Your task to perform on an android device: Open calendar and show me the fourth week of next month Image 0: 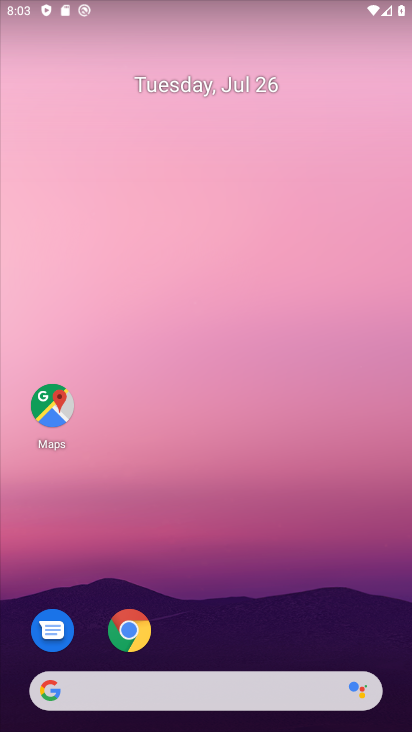
Step 0: drag from (261, 693) to (285, 100)
Your task to perform on an android device: Open calendar and show me the fourth week of next month Image 1: 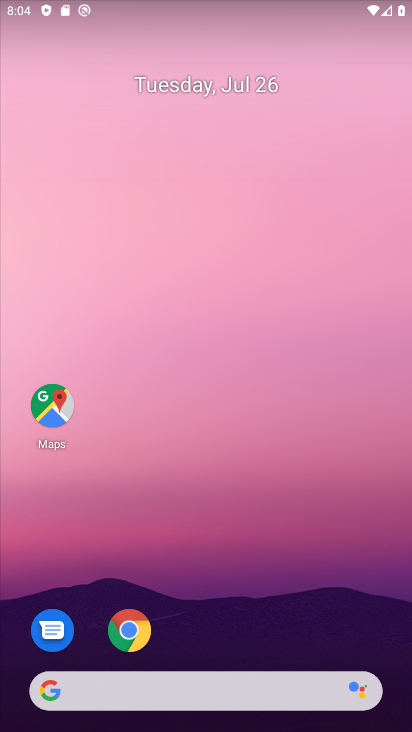
Step 1: drag from (309, 678) to (355, 3)
Your task to perform on an android device: Open calendar and show me the fourth week of next month Image 2: 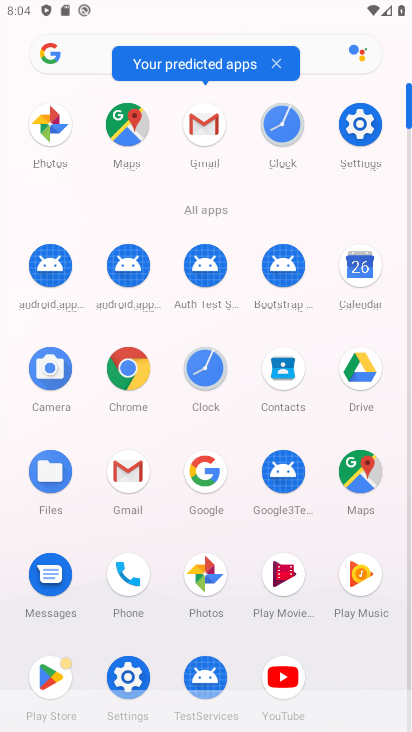
Step 2: click (350, 268)
Your task to perform on an android device: Open calendar and show me the fourth week of next month Image 3: 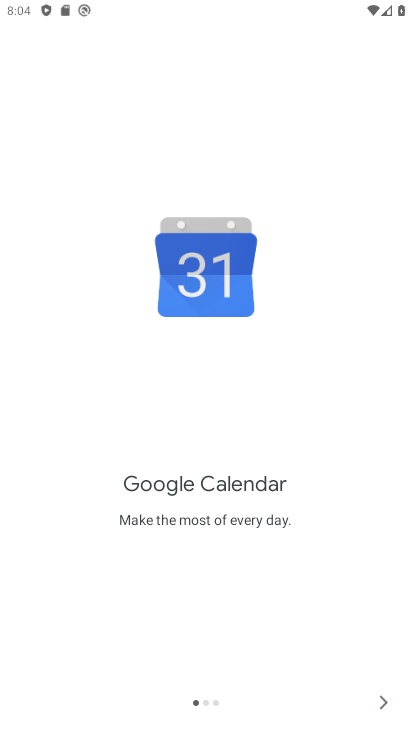
Step 3: click (384, 697)
Your task to perform on an android device: Open calendar and show me the fourth week of next month Image 4: 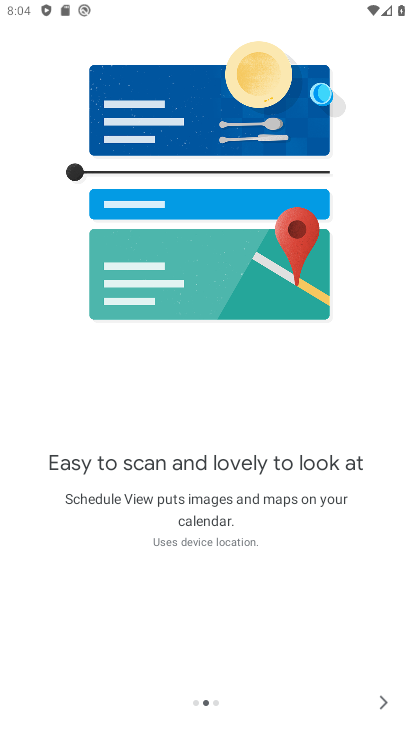
Step 4: click (384, 697)
Your task to perform on an android device: Open calendar and show me the fourth week of next month Image 5: 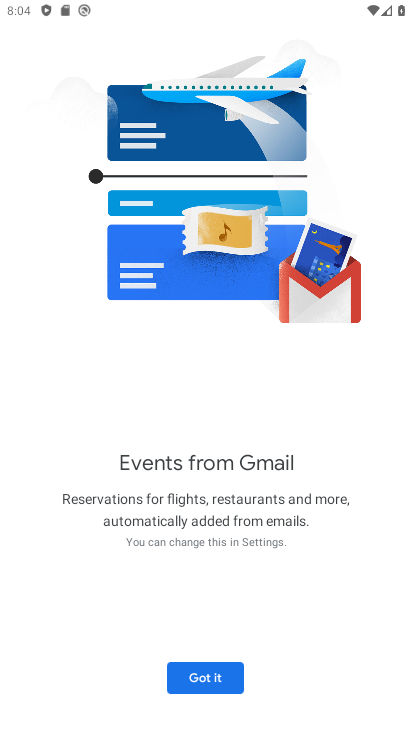
Step 5: click (203, 676)
Your task to perform on an android device: Open calendar and show me the fourth week of next month Image 6: 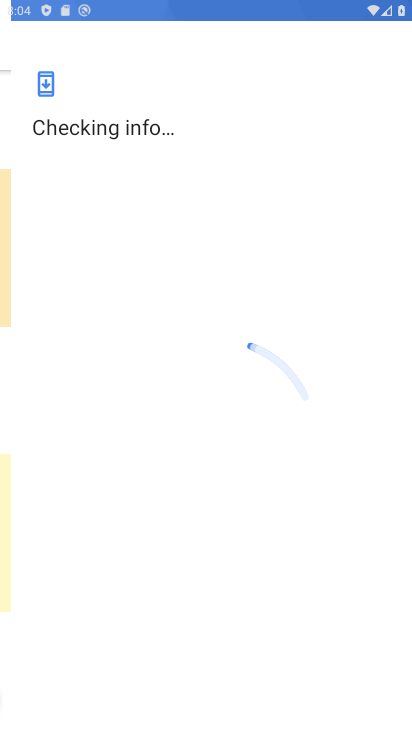
Step 6: click (101, 48)
Your task to perform on an android device: Open calendar and show me the fourth week of next month Image 7: 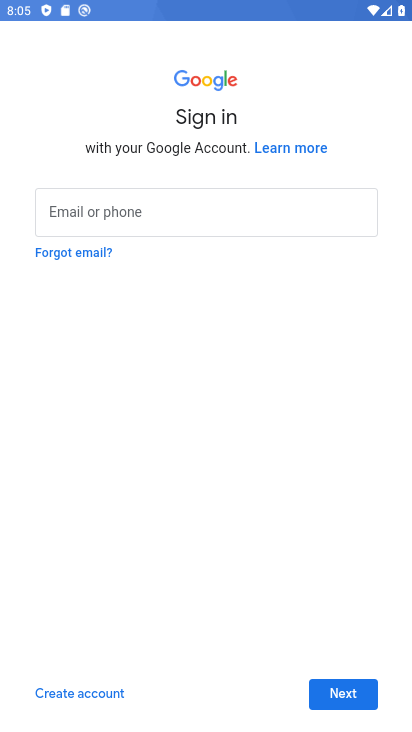
Step 7: press home button
Your task to perform on an android device: Open calendar and show me the fourth week of next month Image 8: 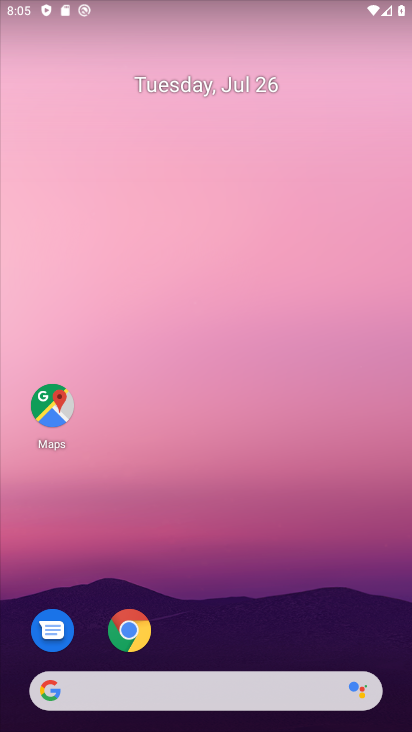
Step 8: drag from (159, 678) to (243, 56)
Your task to perform on an android device: Open calendar and show me the fourth week of next month Image 9: 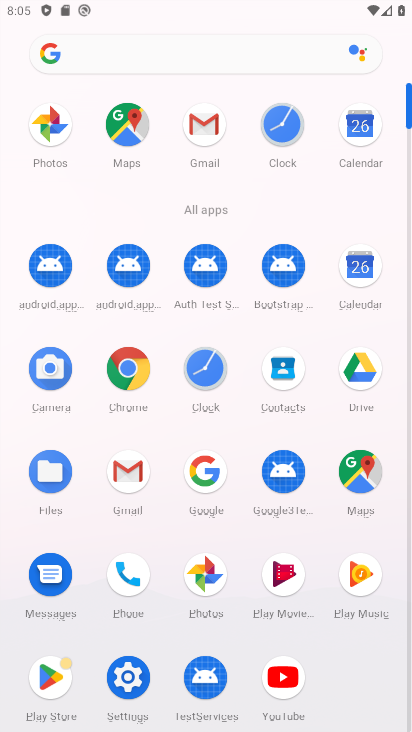
Step 9: click (354, 270)
Your task to perform on an android device: Open calendar and show me the fourth week of next month Image 10: 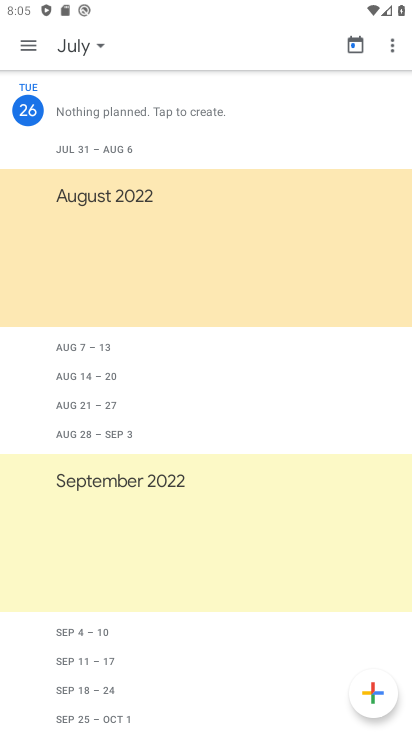
Step 10: click (104, 46)
Your task to perform on an android device: Open calendar and show me the fourth week of next month Image 11: 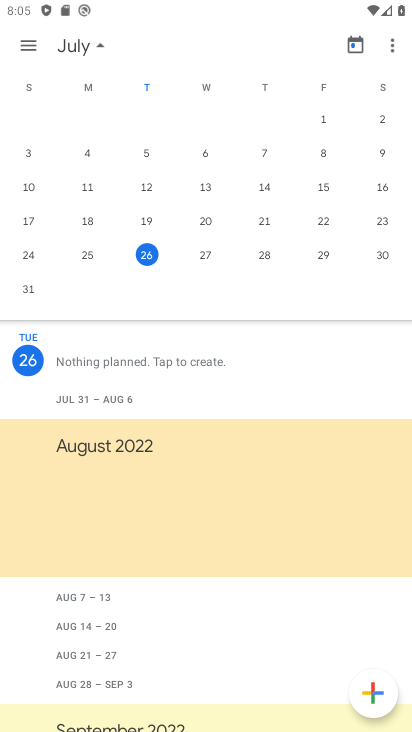
Step 11: drag from (339, 197) to (8, 414)
Your task to perform on an android device: Open calendar and show me the fourth week of next month Image 12: 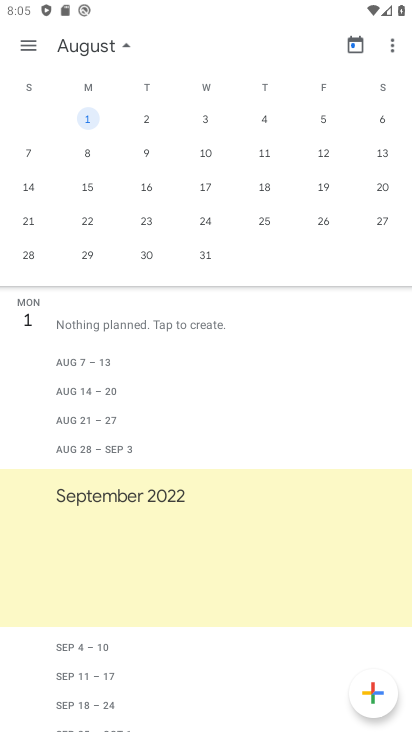
Step 12: drag from (364, 187) to (250, 198)
Your task to perform on an android device: Open calendar and show me the fourth week of next month Image 13: 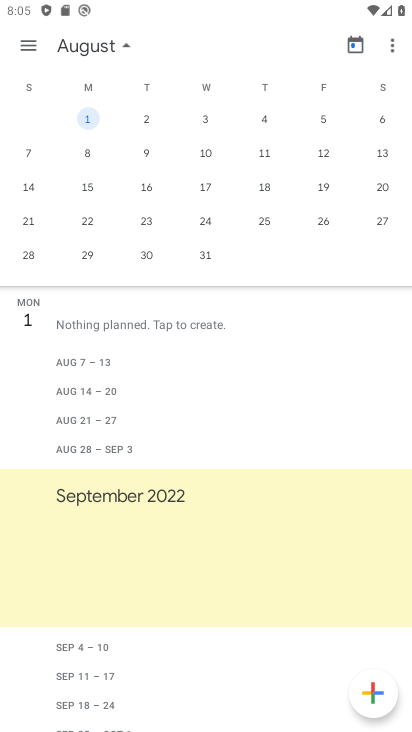
Step 13: click (199, 217)
Your task to perform on an android device: Open calendar and show me the fourth week of next month Image 14: 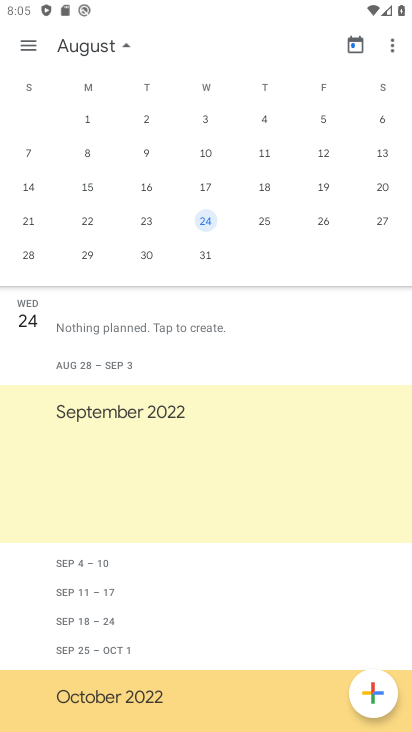
Step 14: task complete